Your task to perform on an android device: set default search engine in the chrome app Image 0: 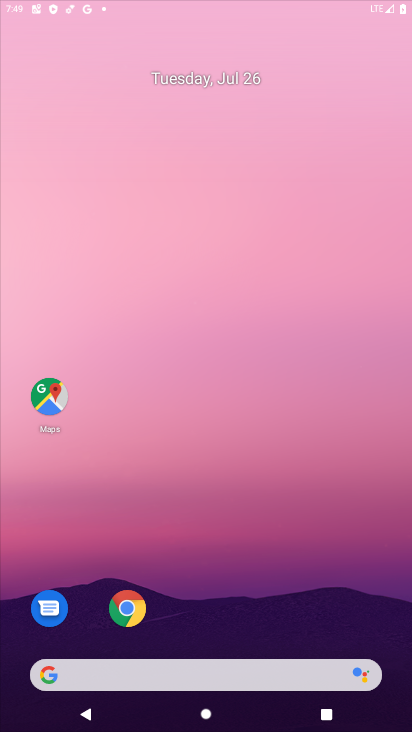
Step 0: click (370, 78)
Your task to perform on an android device: set default search engine in the chrome app Image 1: 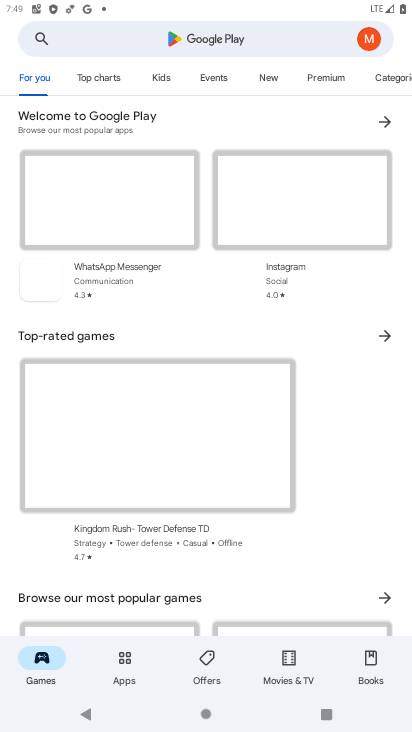
Step 1: press back button
Your task to perform on an android device: set default search engine in the chrome app Image 2: 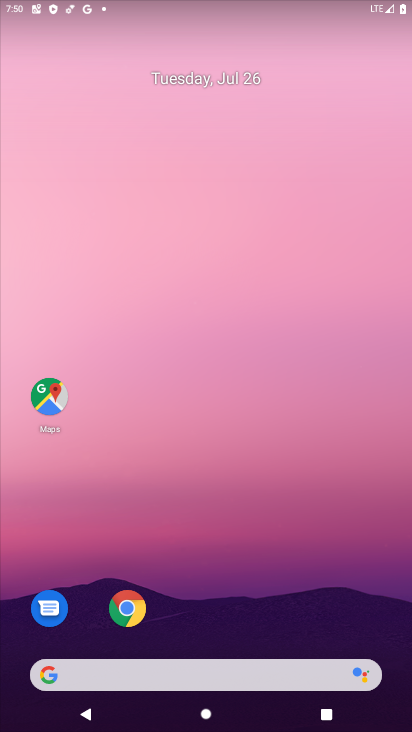
Step 2: drag from (215, 576) to (130, 102)
Your task to perform on an android device: set default search engine in the chrome app Image 3: 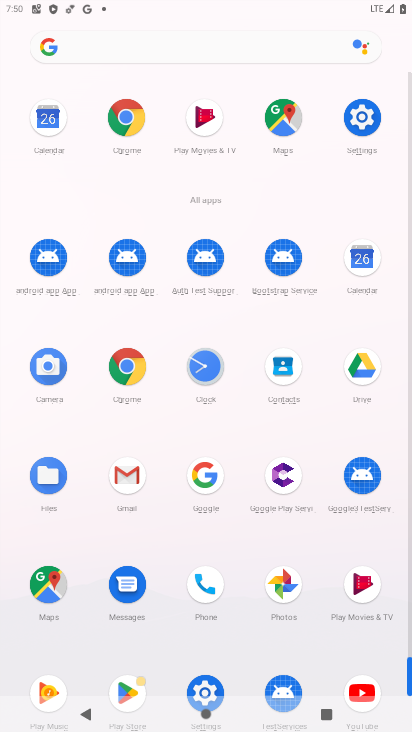
Step 3: click (120, 123)
Your task to perform on an android device: set default search engine in the chrome app Image 4: 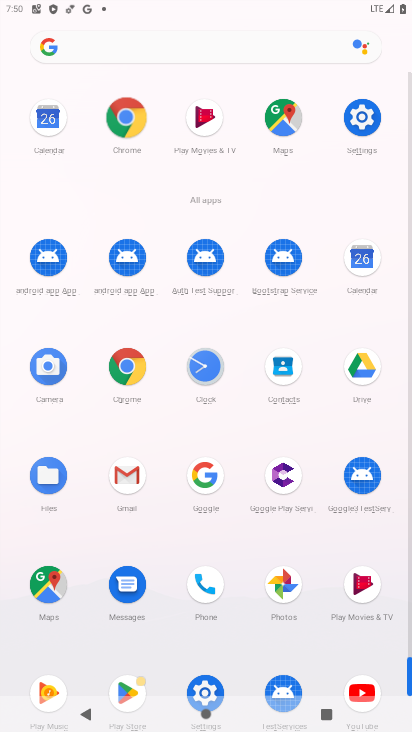
Step 4: click (120, 123)
Your task to perform on an android device: set default search engine in the chrome app Image 5: 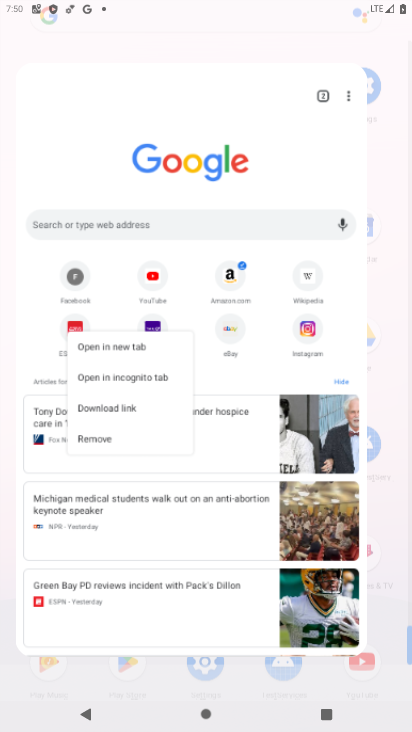
Step 5: click (120, 123)
Your task to perform on an android device: set default search engine in the chrome app Image 6: 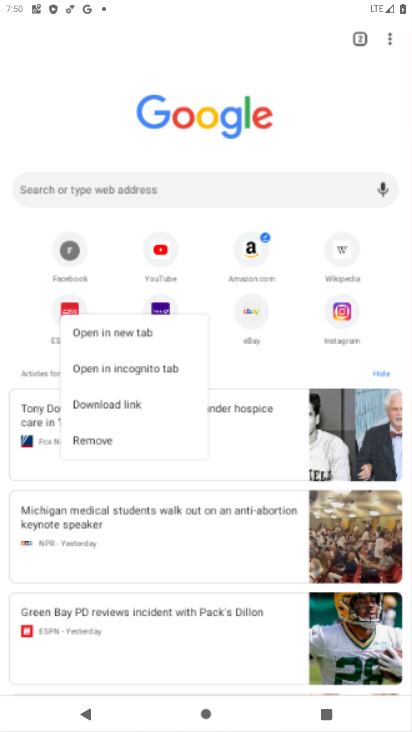
Step 6: click (121, 123)
Your task to perform on an android device: set default search engine in the chrome app Image 7: 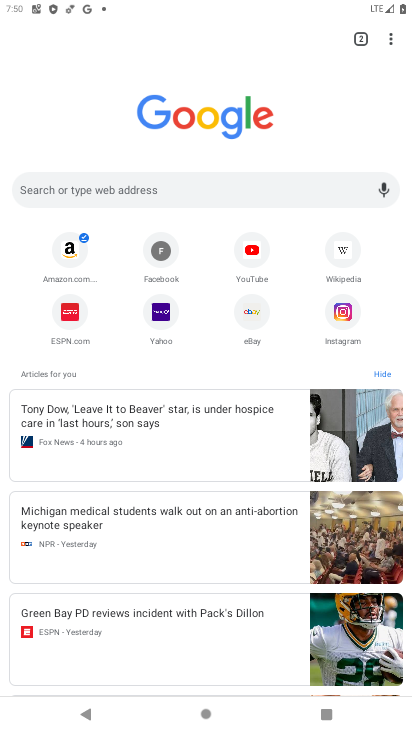
Step 7: click (391, 27)
Your task to perform on an android device: set default search engine in the chrome app Image 8: 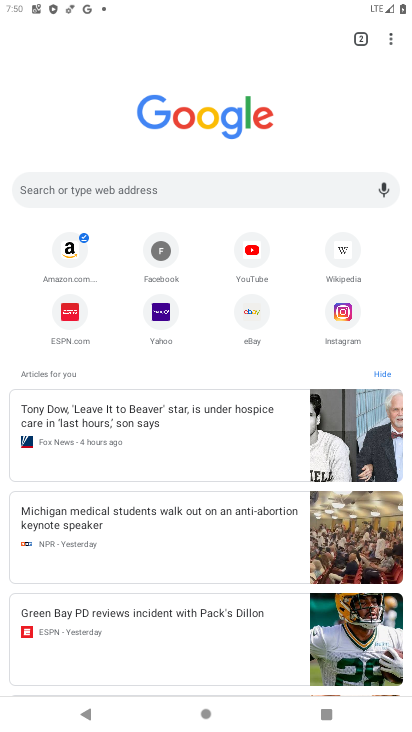
Step 8: click (391, 27)
Your task to perform on an android device: set default search engine in the chrome app Image 9: 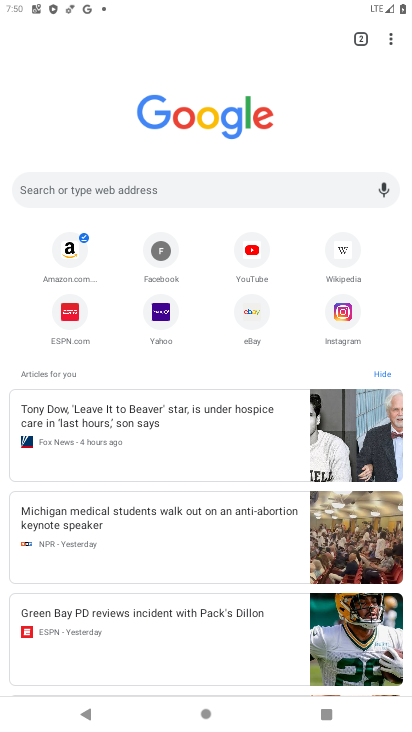
Step 9: drag from (390, 40) to (236, 331)
Your task to perform on an android device: set default search engine in the chrome app Image 10: 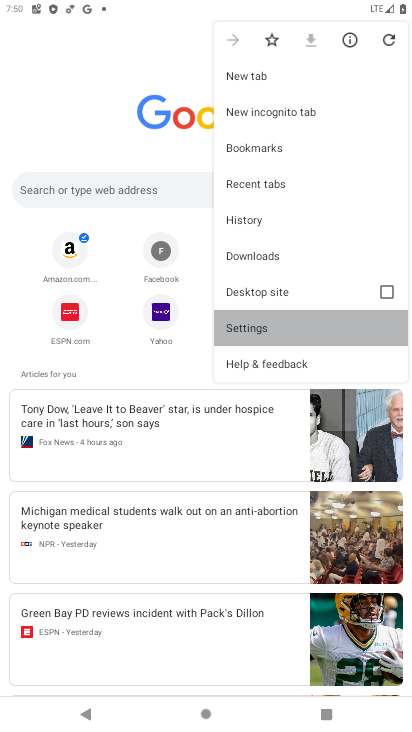
Step 10: click (234, 333)
Your task to perform on an android device: set default search engine in the chrome app Image 11: 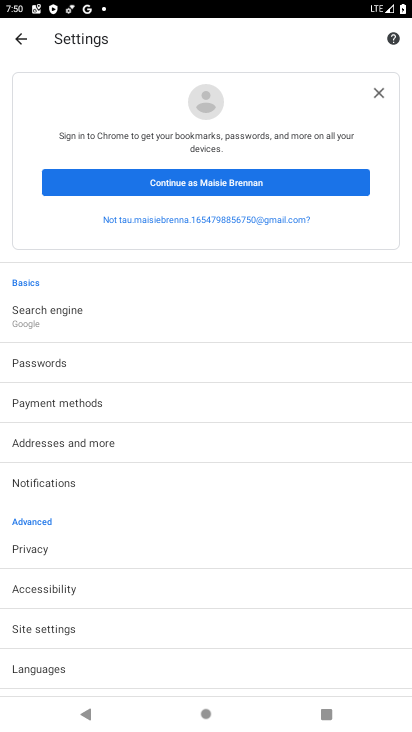
Step 11: click (31, 307)
Your task to perform on an android device: set default search engine in the chrome app Image 12: 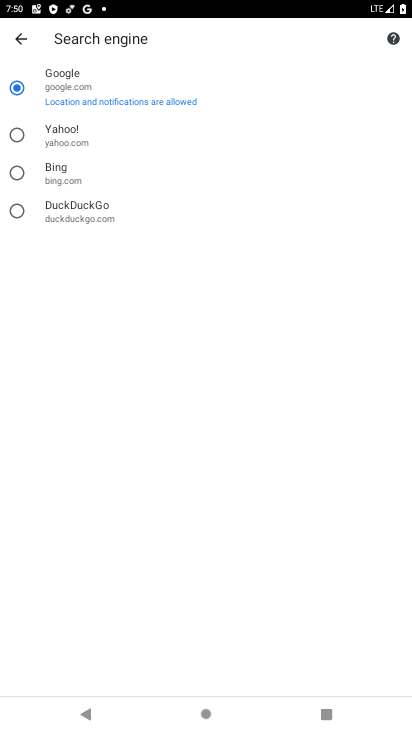
Step 12: click (15, 132)
Your task to perform on an android device: set default search engine in the chrome app Image 13: 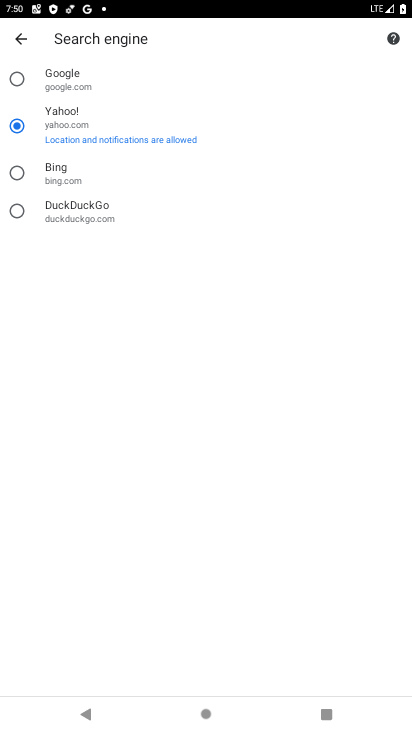
Step 13: task complete